Your task to perform on an android device: Go to Maps Image 0: 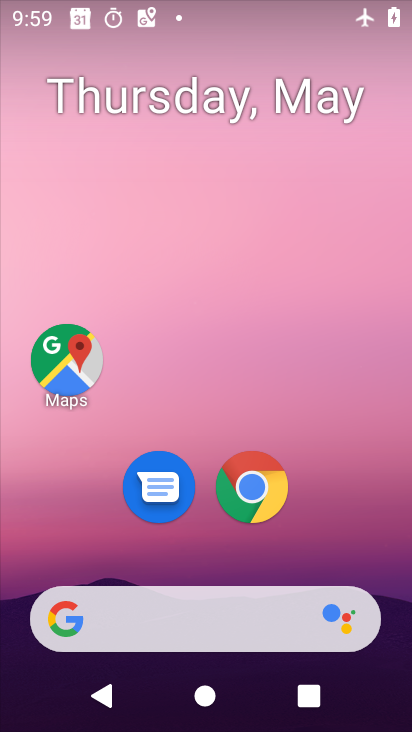
Step 0: drag from (203, 636) to (199, 121)
Your task to perform on an android device: Go to Maps Image 1: 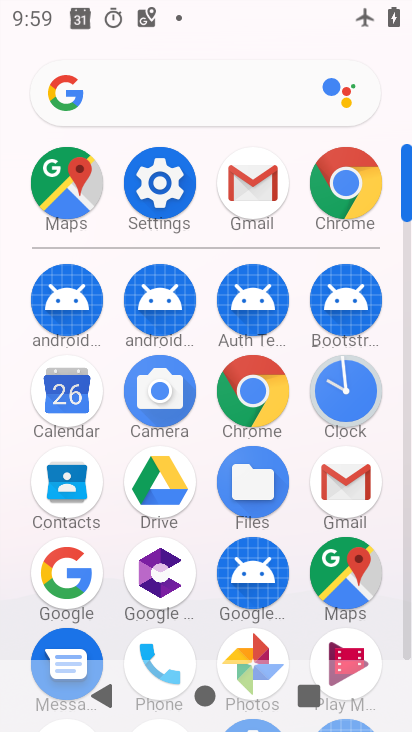
Step 1: drag from (181, 539) to (168, 286)
Your task to perform on an android device: Go to Maps Image 2: 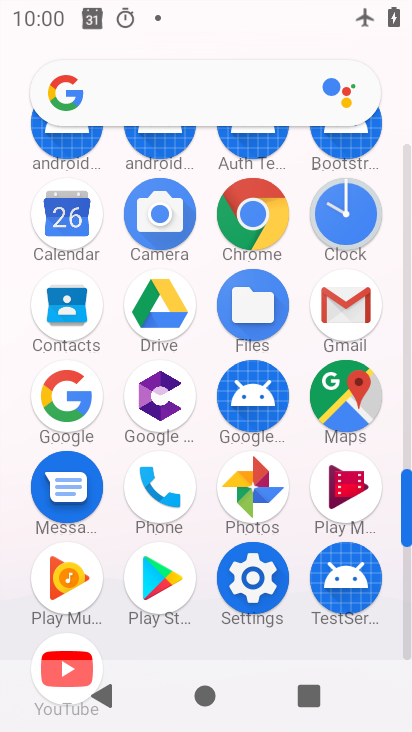
Step 2: click (350, 418)
Your task to perform on an android device: Go to Maps Image 3: 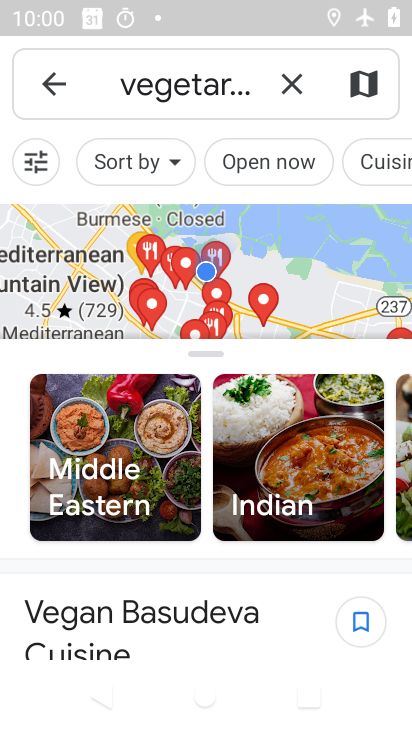
Step 3: task complete